Your task to perform on an android device: Open Maps and search for coffee Image 0: 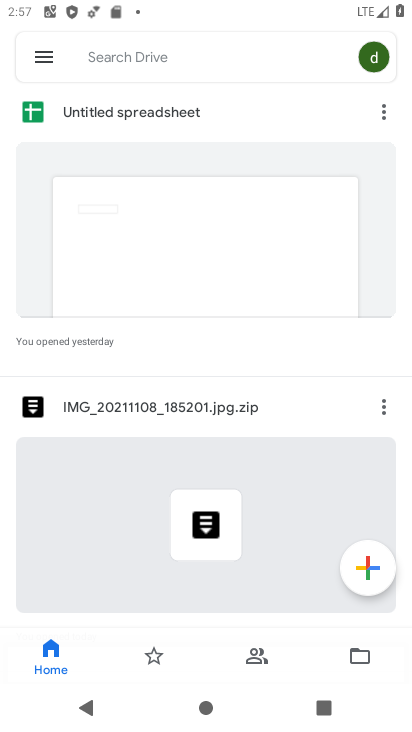
Step 0: press home button
Your task to perform on an android device: Open Maps and search for coffee Image 1: 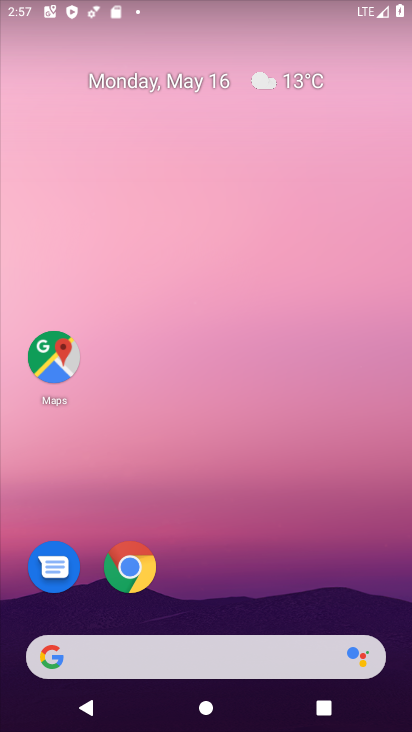
Step 1: click (63, 377)
Your task to perform on an android device: Open Maps and search for coffee Image 2: 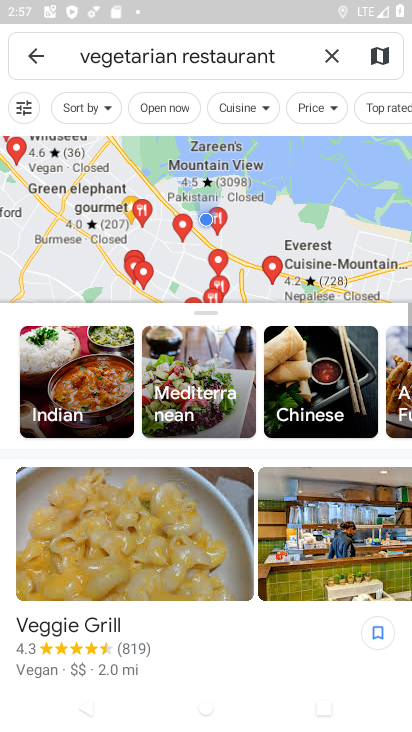
Step 2: click (272, 34)
Your task to perform on an android device: Open Maps and search for coffee Image 3: 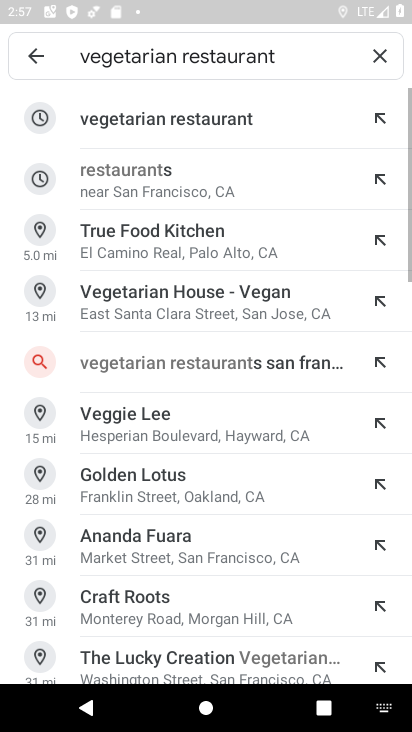
Step 3: click (373, 54)
Your task to perform on an android device: Open Maps and search for coffee Image 4: 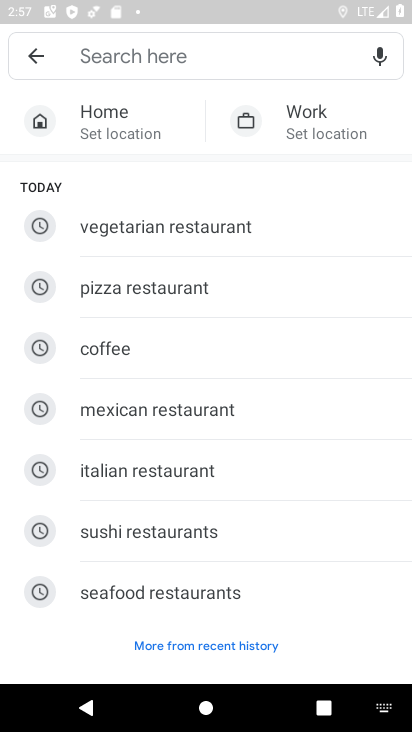
Step 4: click (104, 347)
Your task to perform on an android device: Open Maps and search for coffee Image 5: 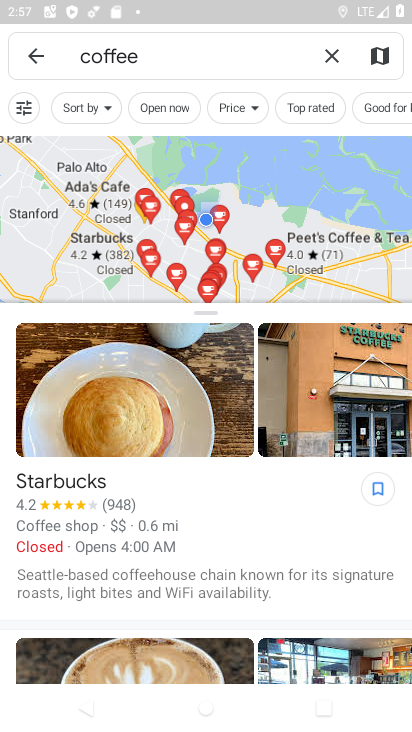
Step 5: task complete